Your task to perform on an android device: Open Maps and search for coffee Image 0: 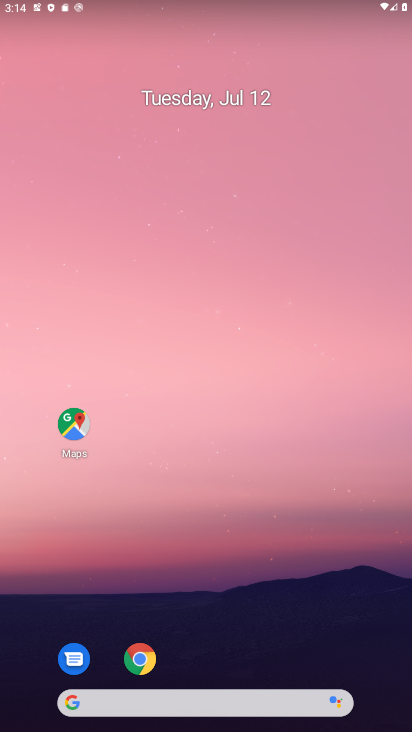
Step 0: drag from (233, 726) to (213, 124)
Your task to perform on an android device: Open Maps and search for coffee Image 1: 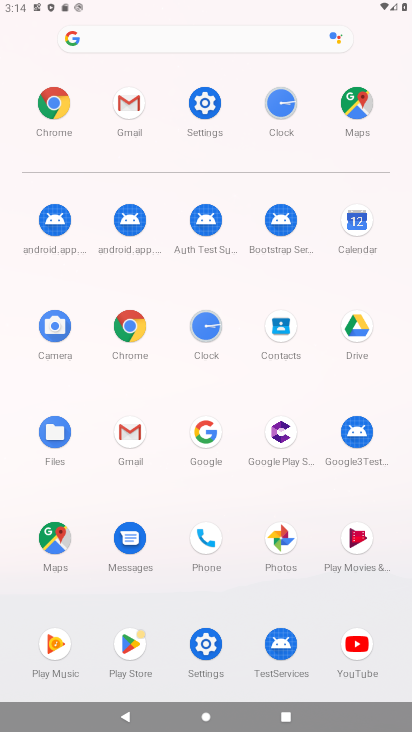
Step 1: click (361, 111)
Your task to perform on an android device: Open Maps and search for coffee Image 2: 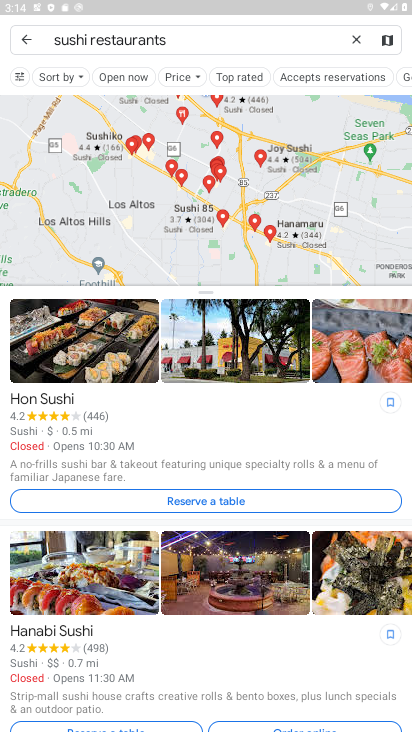
Step 2: click (353, 36)
Your task to perform on an android device: Open Maps and search for coffee Image 3: 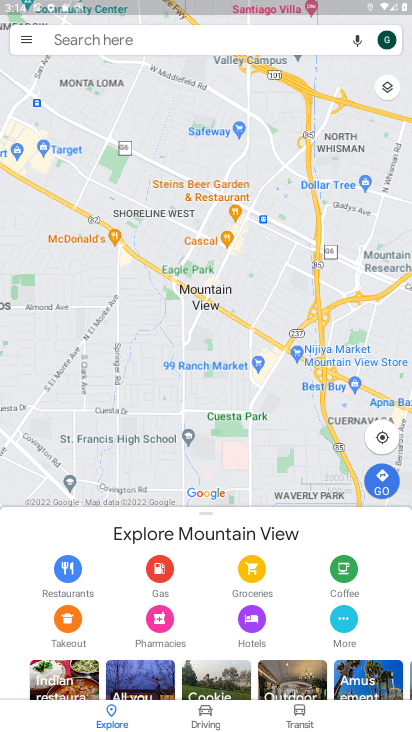
Step 3: click (166, 38)
Your task to perform on an android device: Open Maps and search for coffee Image 4: 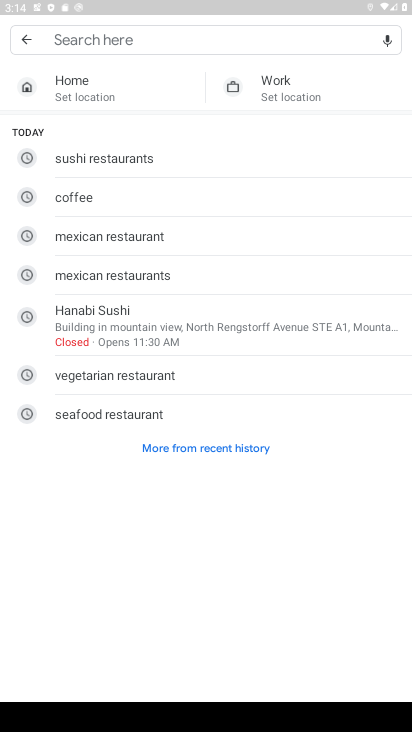
Step 4: type "coffee"
Your task to perform on an android device: Open Maps and search for coffee Image 5: 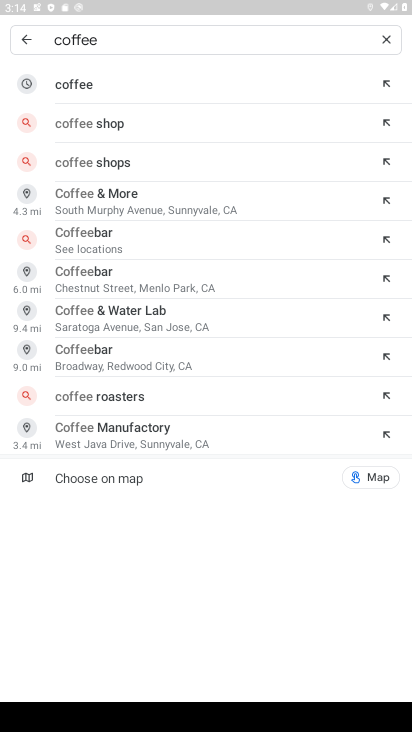
Step 5: click (63, 80)
Your task to perform on an android device: Open Maps and search for coffee Image 6: 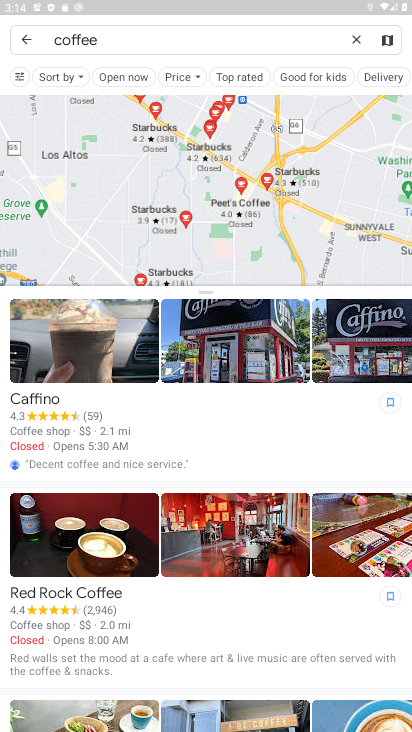
Step 6: task complete